Your task to perform on an android device: Open Google Image 0: 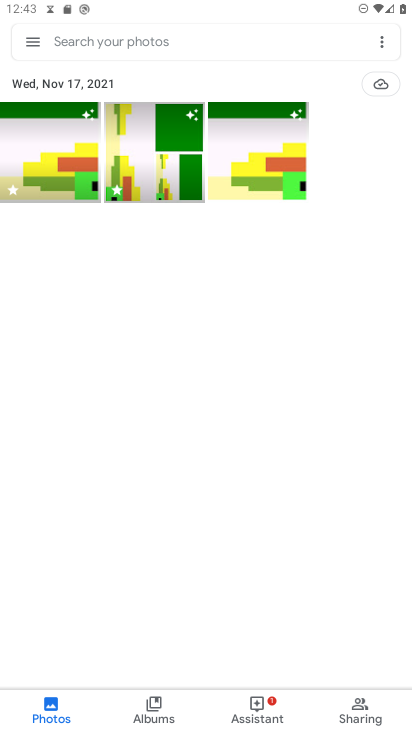
Step 0: press back button
Your task to perform on an android device: Open Google Image 1: 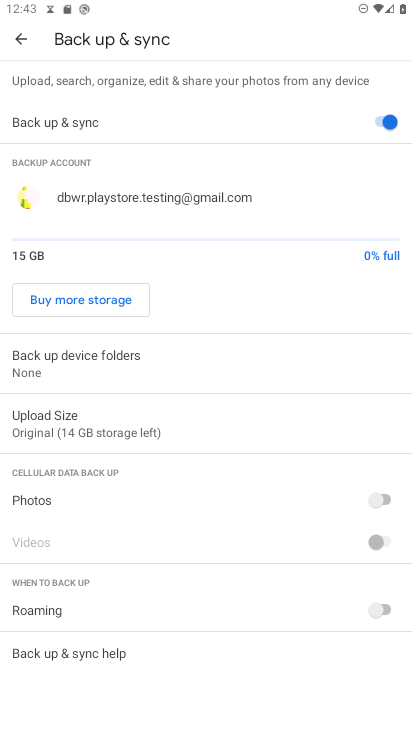
Step 1: press back button
Your task to perform on an android device: Open Google Image 2: 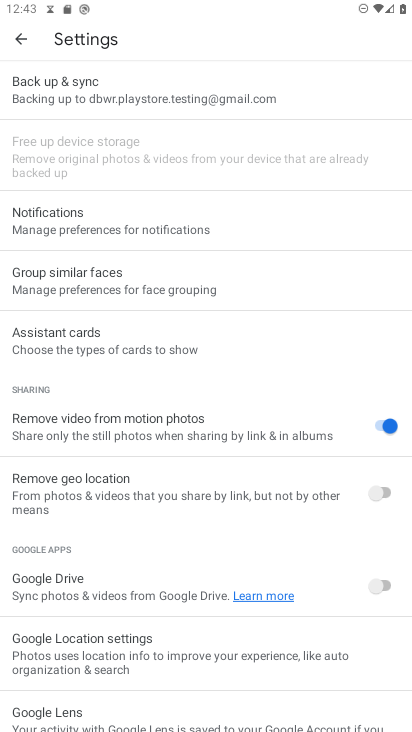
Step 2: press back button
Your task to perform on an android device: Open Google Image 3: 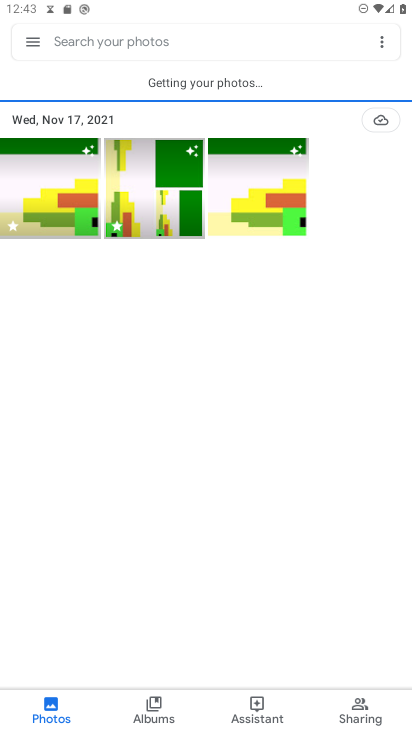
Step 3: press home button
Your task to perform on an android device: Open Google Image 4: 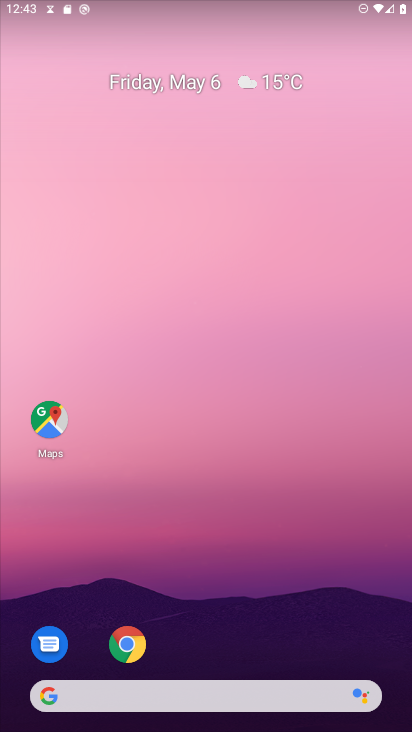
Step 4: drag from (307, 511) to (278, 17)
Your task to perform on an android device: Open Google Image 5: 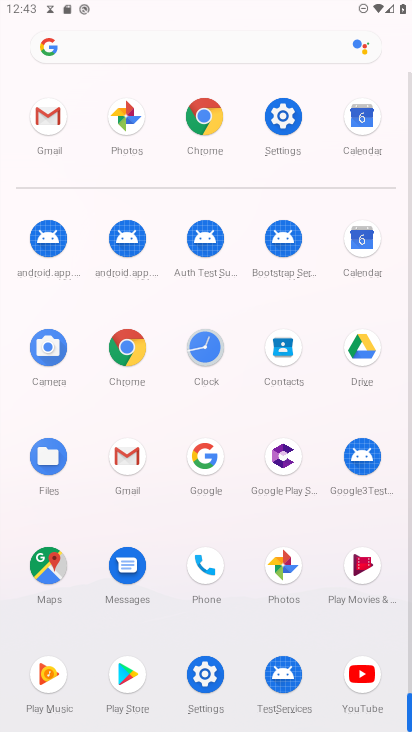
Step 5: click (203, 114)
Your task to perform on an android device: Open Google Image 6: 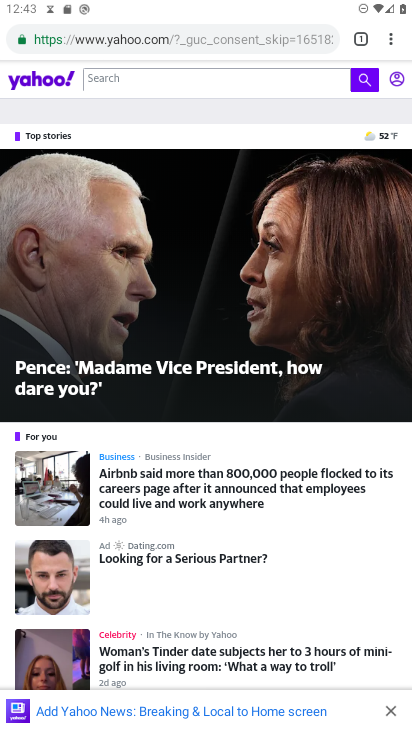
Step 6: click (173, 47)
Your task to perform on an android device: Open Google Image 7: 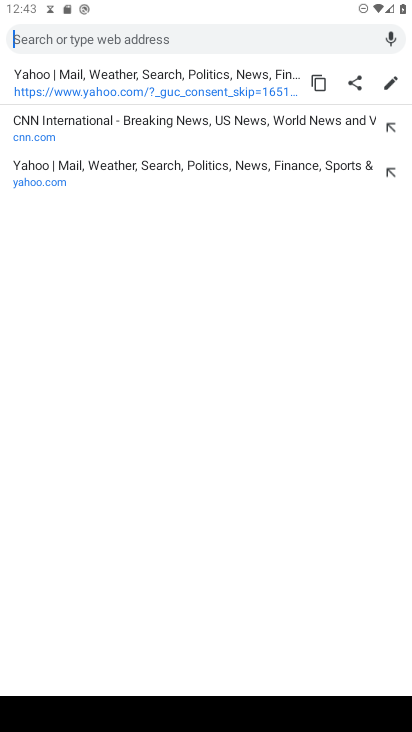
Step 7: type "Open Google"
Your task to perform on an android device: Open Google Image 8: 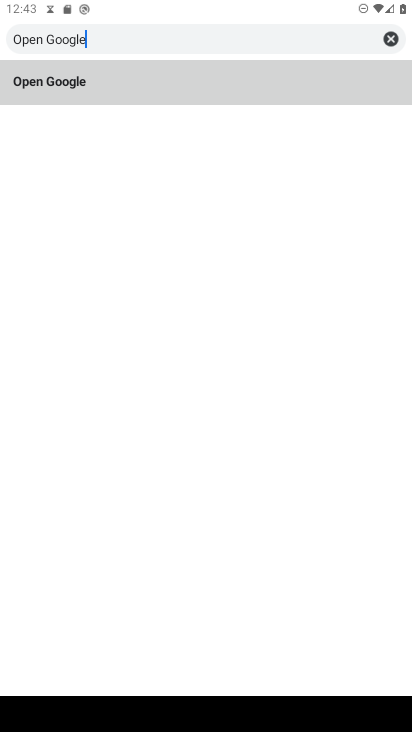
Step 8: type ""
Your task to perform on an android device: Open Google Image 9: 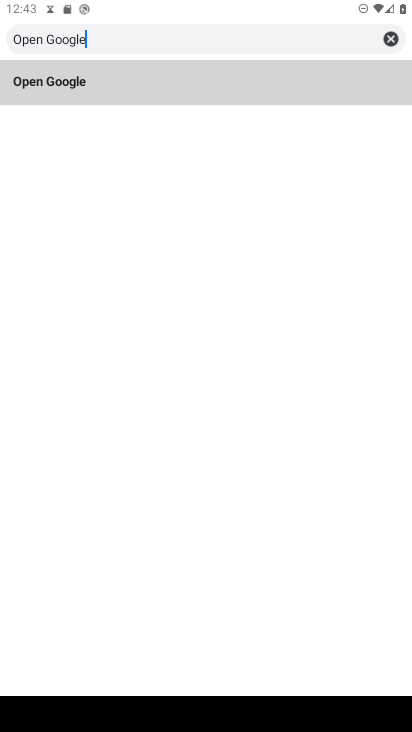
Step 9: click (160, 87)
Your task to perform on an android device: Open Google Image 10: 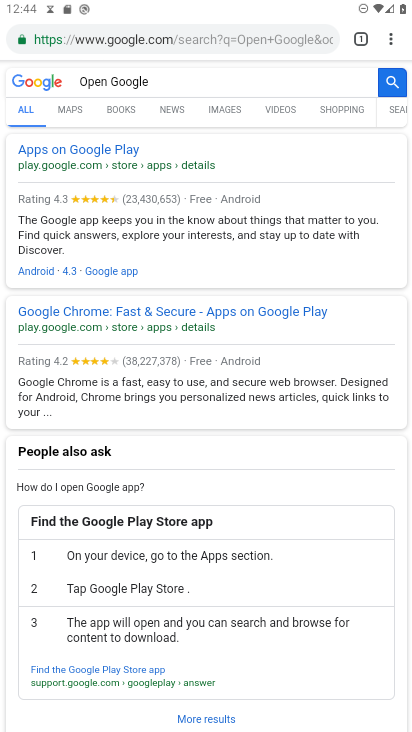
Step 10: drag from (266, 497) to (313, 149)
Your task to perform on an android device: Open Google Image 11: 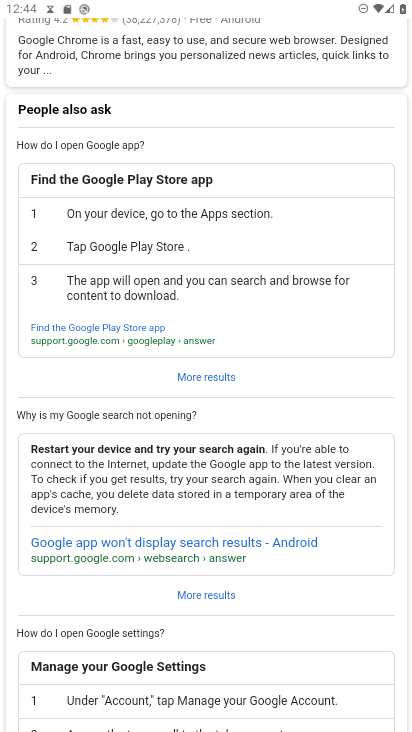
Step 11: drag from (133, 561) to (235, 173)
Your task to perform on an android device: Open Google Image 12: 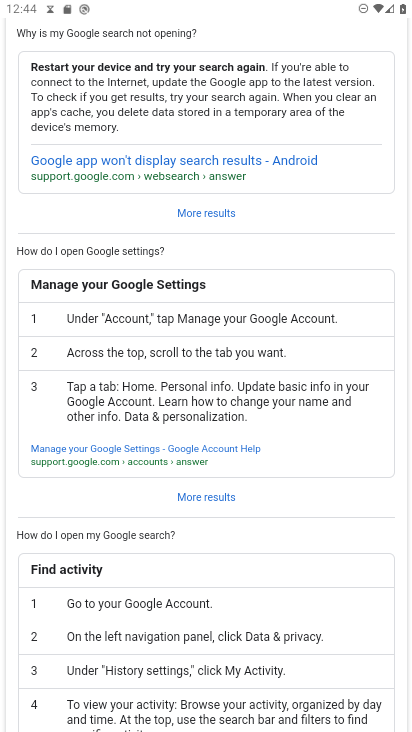
Step 12: drag from (216, 515) to (247, 175)
Your task to perform on an android device: Open Google Image 13: 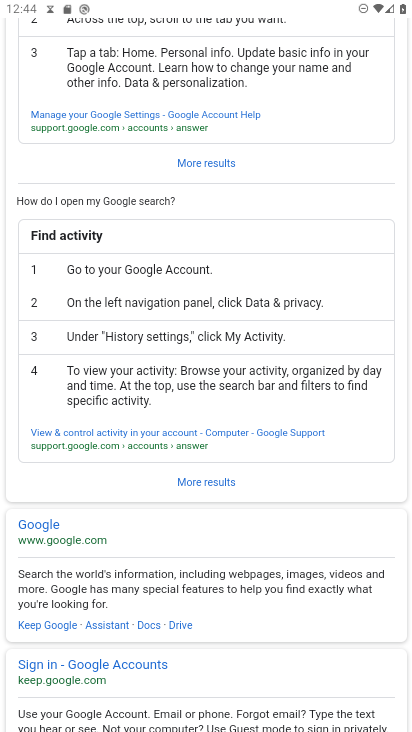
Step 13: click (50, 528)
Your task to perform on an android device: Open Google Image 14: 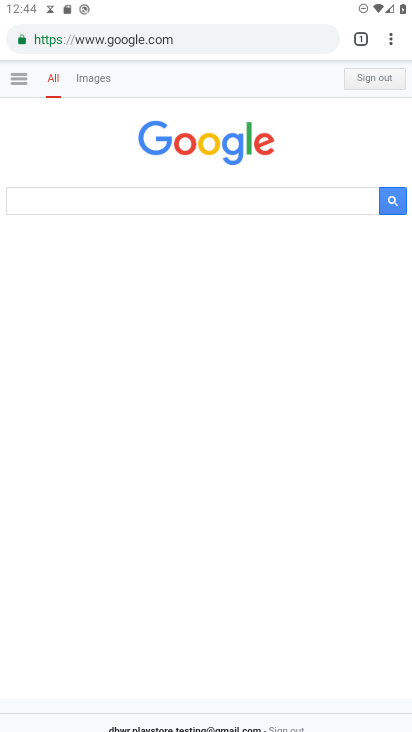
Step 14: task complete